Your task to perform on an android device: check out phone information Image 0: 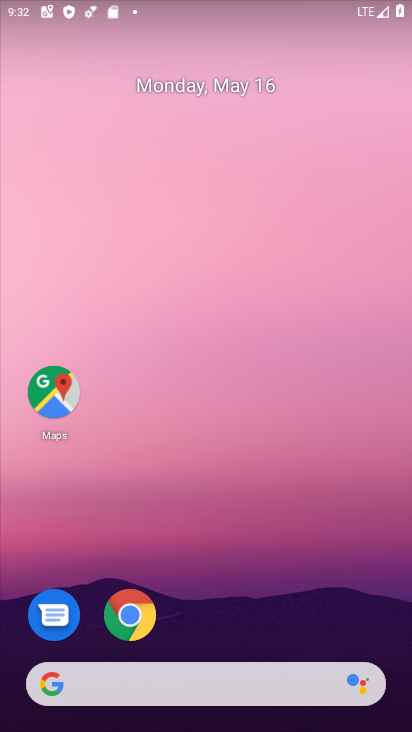
Step 0: drag from (214, 605) to (172, 264)
Your task to perform on an android device: check out phone information Image 1: 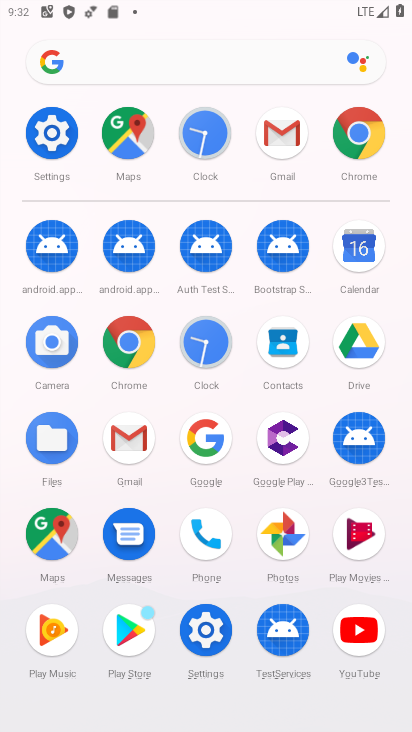
Step 1: click (63, 152)
Your task to perform on an android device: check out phone information Image 2: 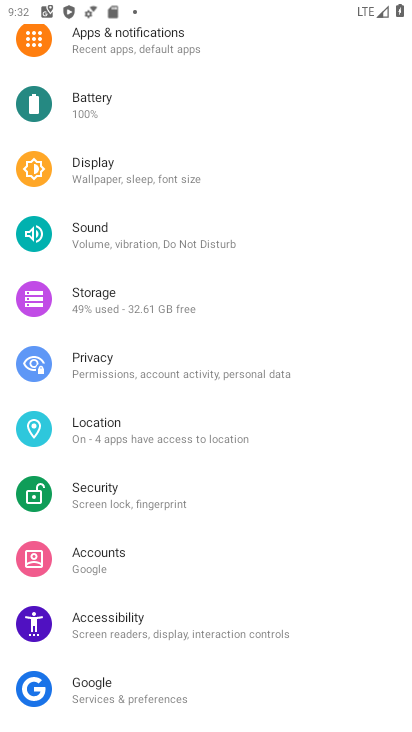
Step 2: drag from (165, 591) to (221, 390)
Your task to perform on an android device: check out phone information Image 3: 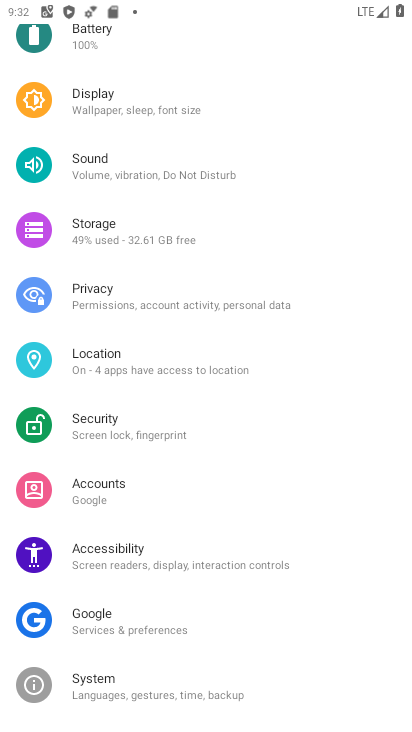
Step 3: drag from (195, 694) to (207, 608)
Your task to perform on an android device: check out phone information Image 4: 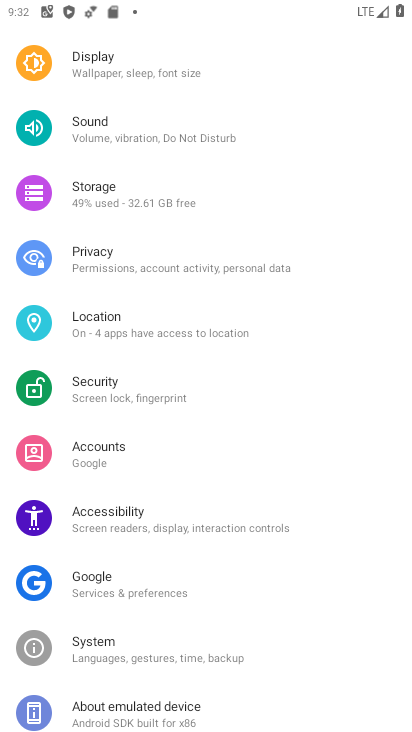
Step 4: drag from (187, 708) to (232, 516)
Your task to perform on an android device: check out phone information Image 5: 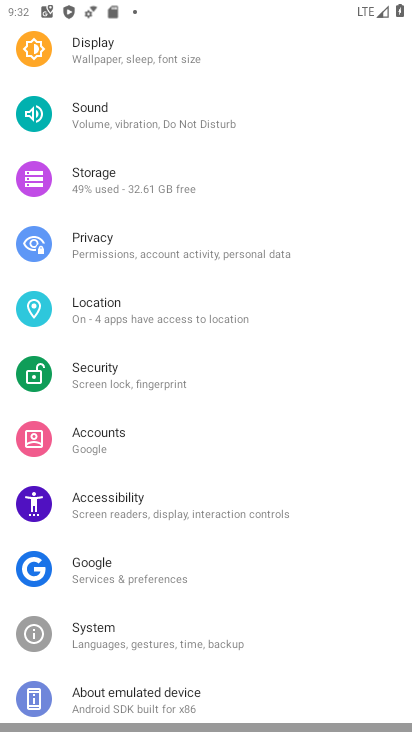
Step 5: click (207, 679)
Your task to perform on an android device: check out phone information Image 6: 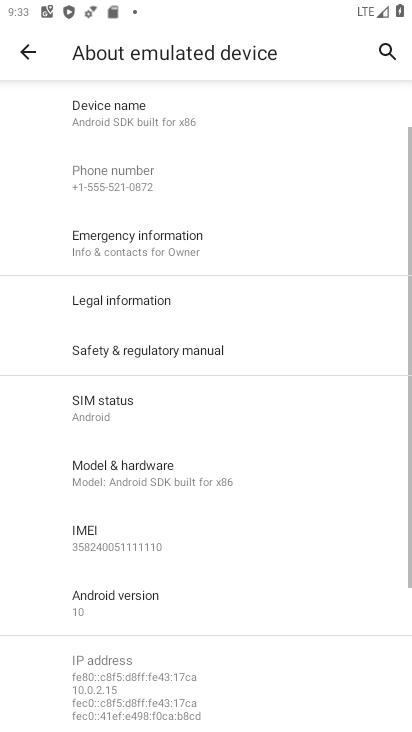
Step 6: task complete